Your task to perform on an android device: remove spam from my inbox in the gmail app Image 0: 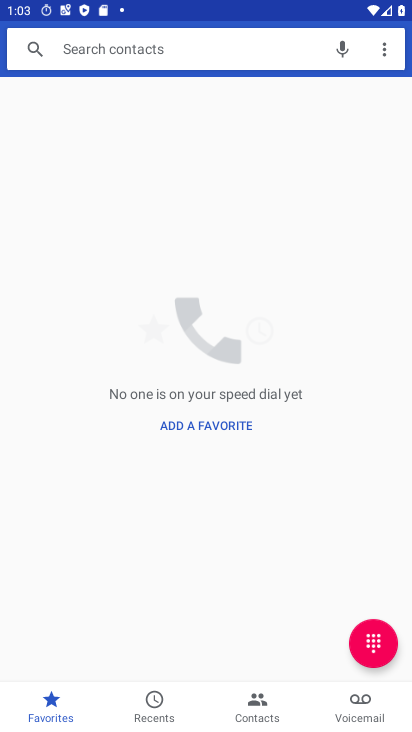
Step 0: press home button
Your task to perform on an android device: remove spam from my inbox in the gmail app Image 1: 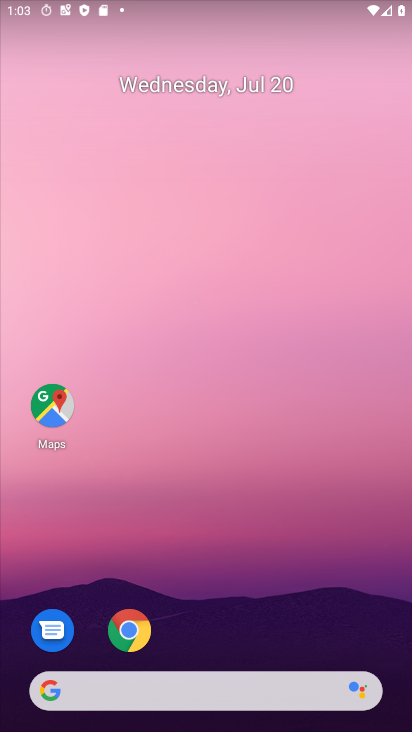
Step 1: drag from (260, 615) to (260, 59)
Your task to perform on an android device: remove spam from my inbox in the gmail app Image 2: 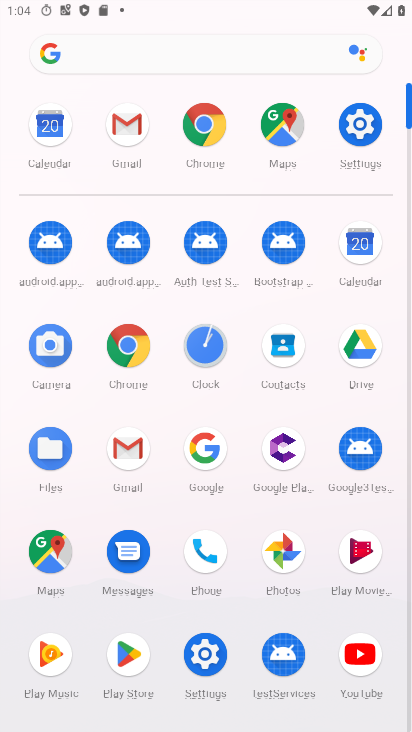
Step 2: click (114, 120)
Your task to perform on an android device: remove spam from my inbox in the gmail app Image 3: 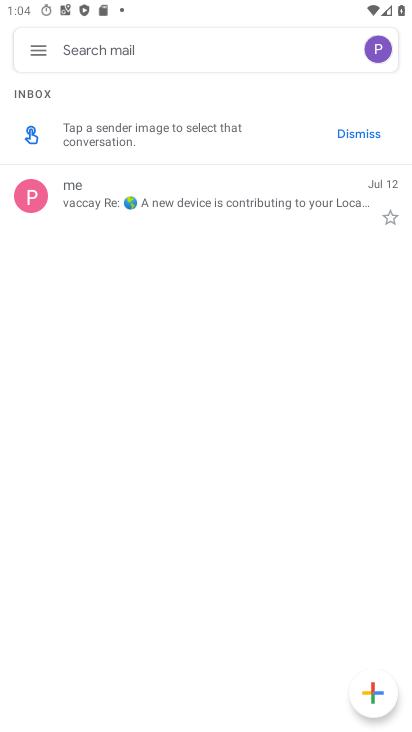
Step 3: click (42, 49)
Your task to perform on an android device: remove spam from my inbox in the gmail app Image 4: 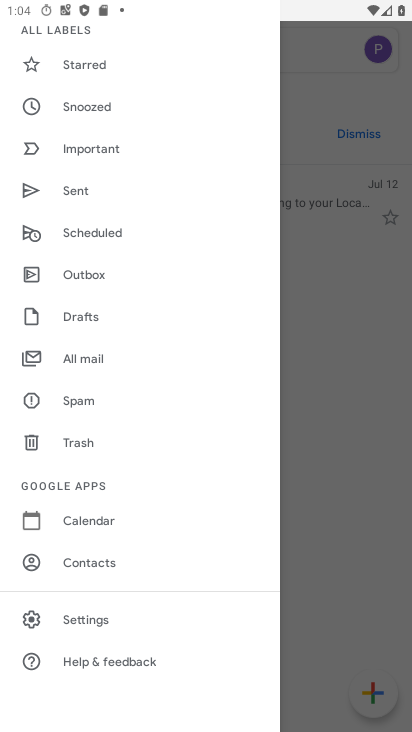
Step 4: click (68, 409)
Your task to perform on an android device: remove spam from my inbox in the gmail app Image 5: 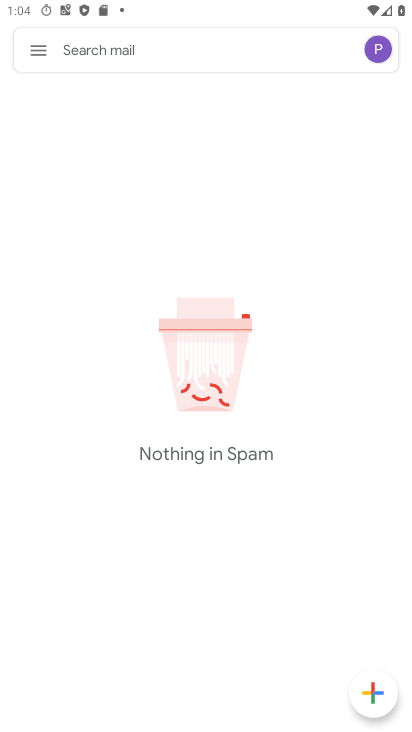
Step 5: task complete